Your task to perform on an android device: Open display settings Image 0: 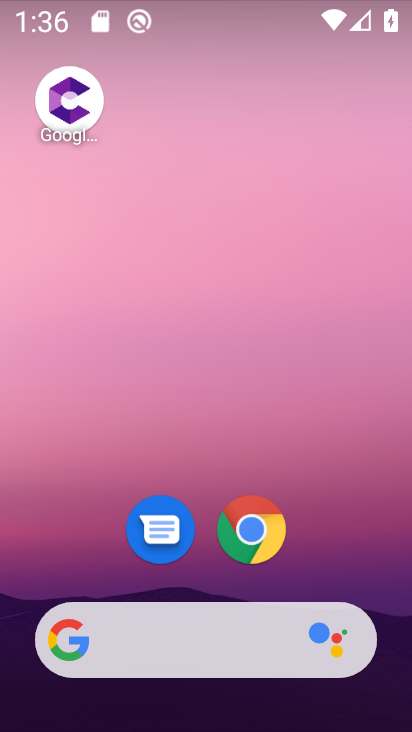
Step 0: drag from (325, 475) to (255, 54)
Your task to perform on an android device: Open display settings Image 1: 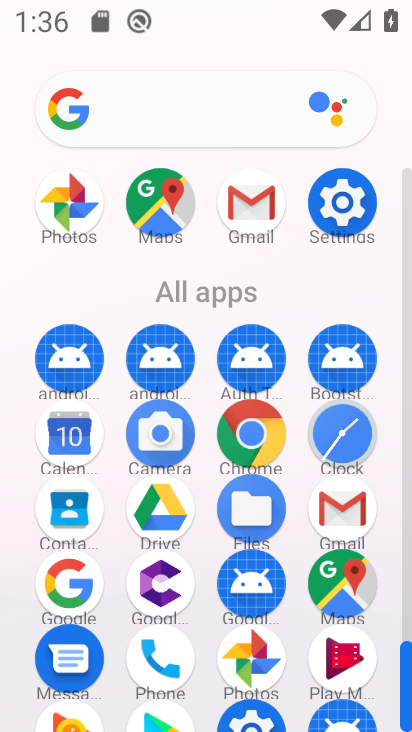
Step 1: click (344, 203)
Your task to perform on an android device: Open display settings Image 2: 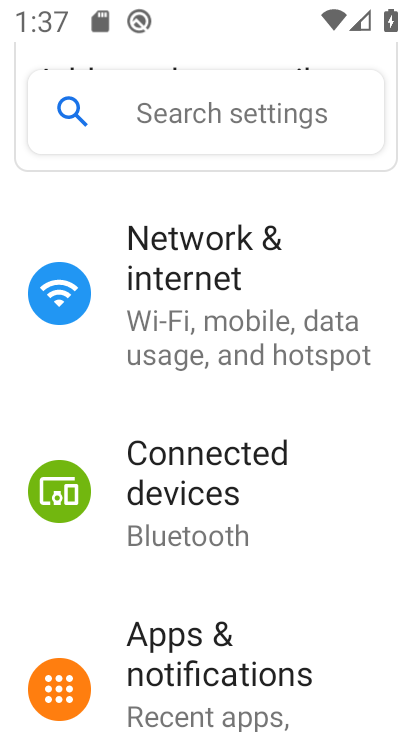
Step 2: drag from (237, 550) to (291, 325)
Your task to perform on an android device: Open display settings Image 3: 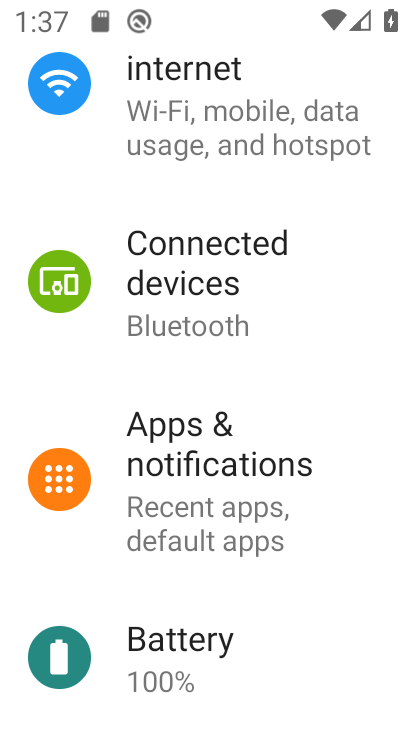
Step 3: drag from (190, 603) to (250, 374)
Your task to perform on an android device: Open display settings Image 4: 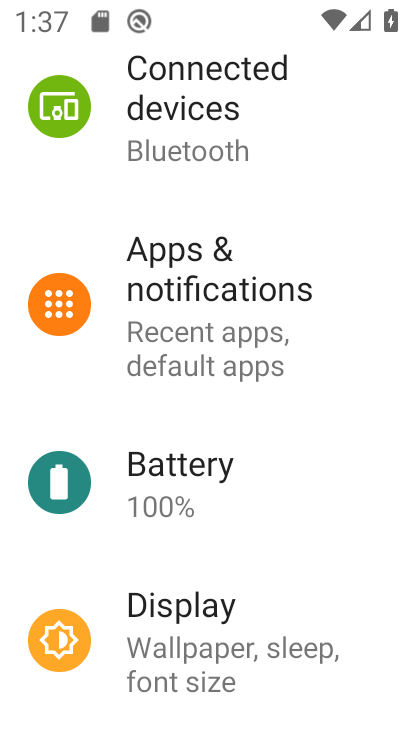
Step 4: drag from (207, 537) to (261, 376)
Your task to perform on an android device: Open display settings Image 5: 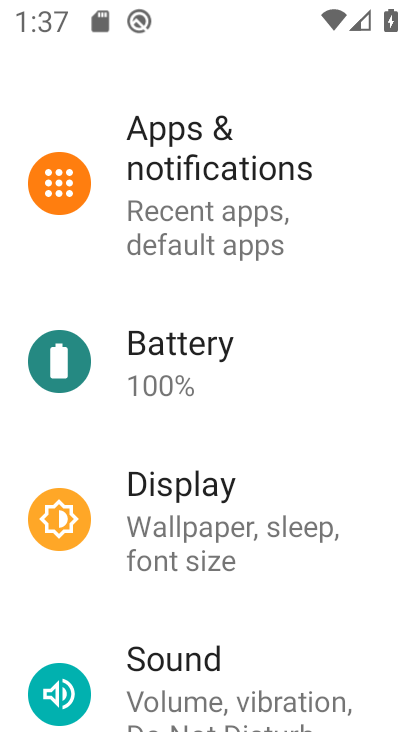
Step 5: click (197, 497)
Your task to perform on an android device: Open display settings Image 6: 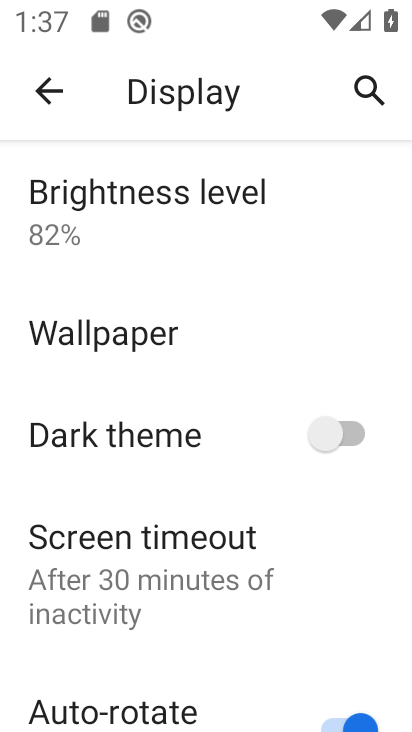
Step 6: task complete